Your task to perform on an android device: Go to calendar. Show me events next week Image 0: 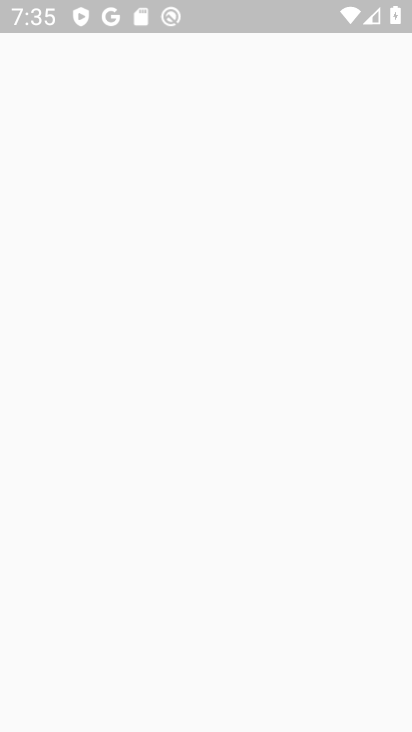
Step 0: drag from (363, 571) to (352, 187)
Your task to perform on an android device: Go to calendar. Show me events next week Image 1: 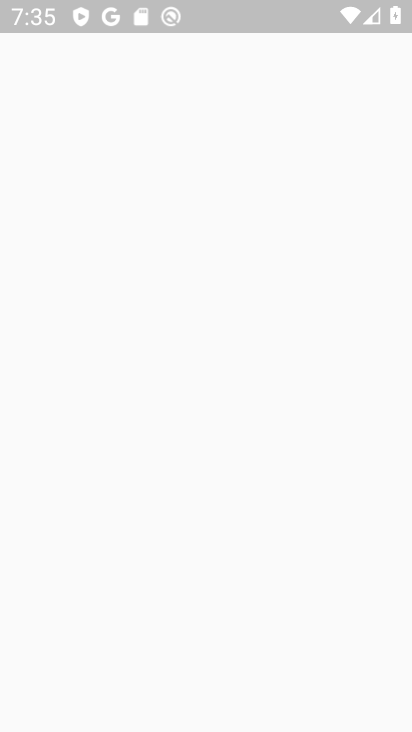
Step 1: press home button
Your task to perform on an android device: Go to calendar. Show me events next week Image 2: 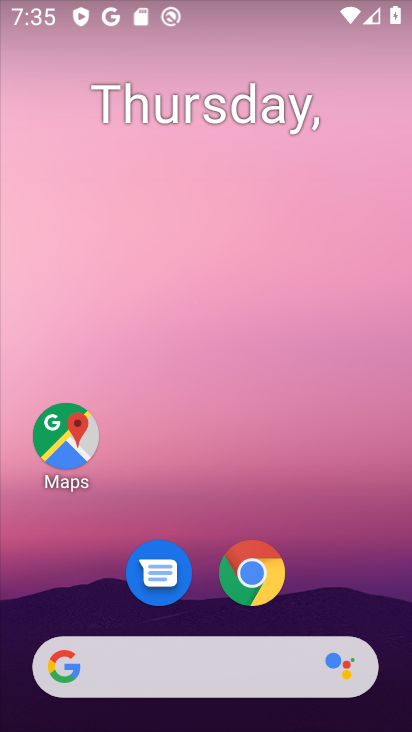
Step 2: drag from (364, 585) to (304, 226)
Your task to perform on an android device: Go to calendar. Show me events next week Image 3: 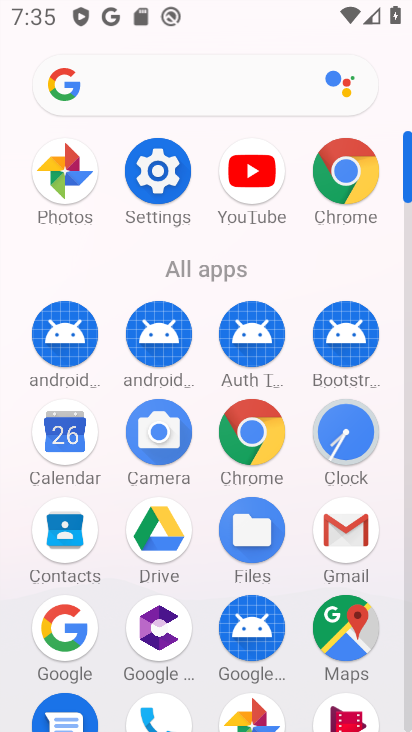
Step 3: click (73, 436)
Your task to perform on an android device: Go to calendar. Show me events next week Image 4: 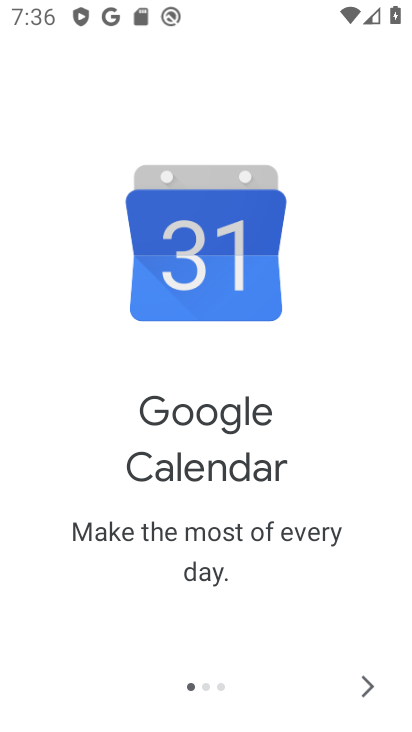
Step 4: click (375, 681)
Your task to perform on an android device: Go to calendar. Show me events next week Image 5: 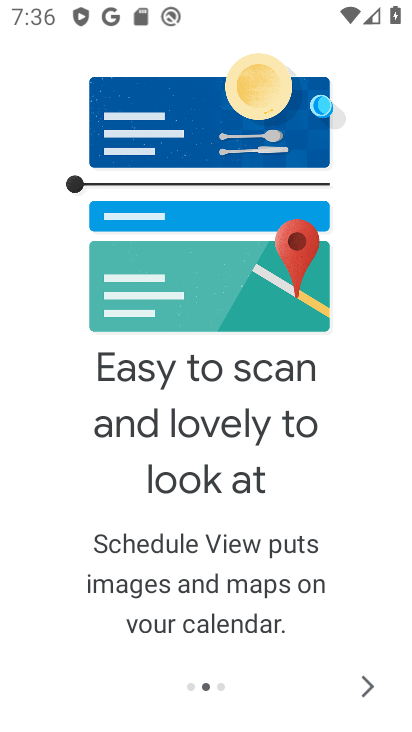
Step 5: click (373, 680)
Your task to perform on an android device: Go to calendar. Show me events next week Image 6: 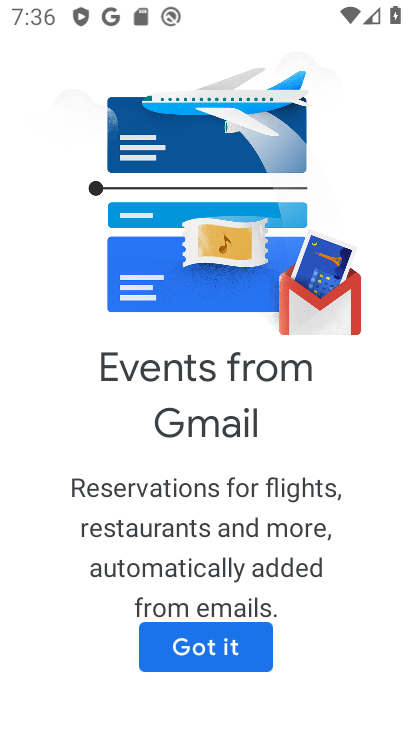
Step 6: click (239, 655)
Your task to perform on an android device: Go to calendar. Show me events next week Image 7: 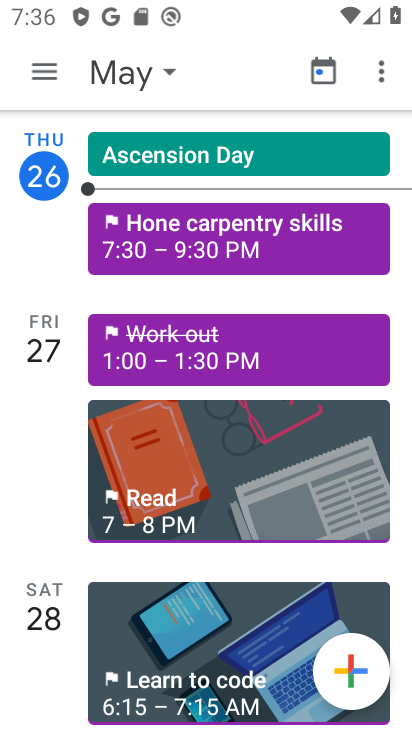
Step 7: click (102, 83)
Your task to perform on an android device: Go to calendar. Show me events next week Image 8: 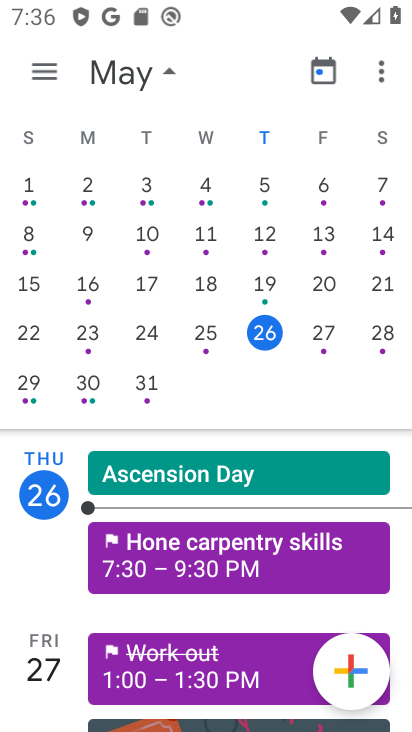
Step 8: click (23, 389)
Your task to perform on an android device: Go to calendar. Show me events next week Image 9: 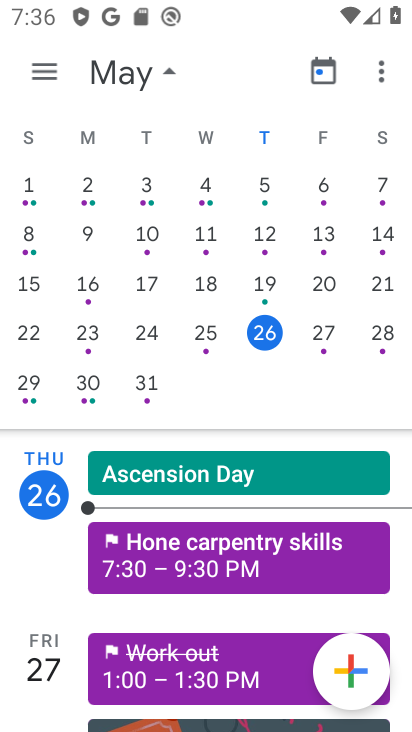
Step 9: click (40, 388)
Your task to perform on an android device: Go to calendar. Show me events next week Image 10: 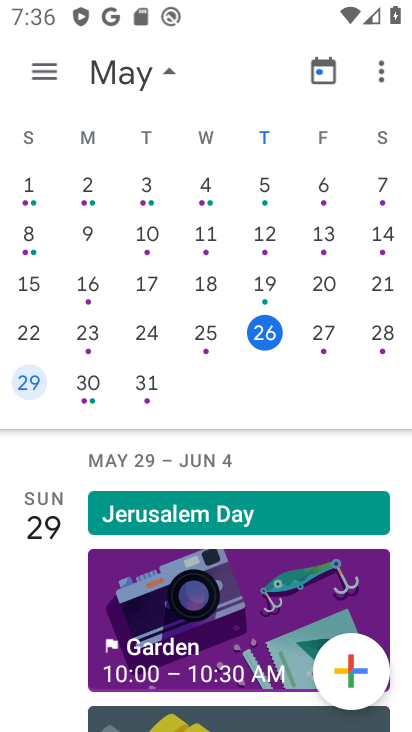
Step 10: task complete